Your task to perform on an android device: turn notification dots on Image 0: 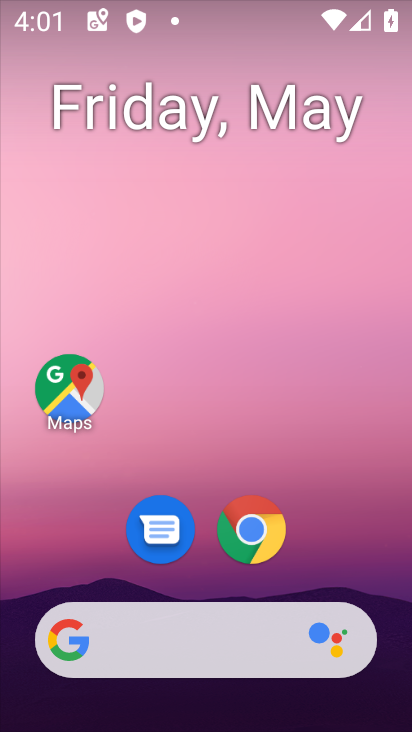
Step 0: drag from (270, 599) to (294, 195)
Your task to perform on an android device: turn notification dots on Image 1: 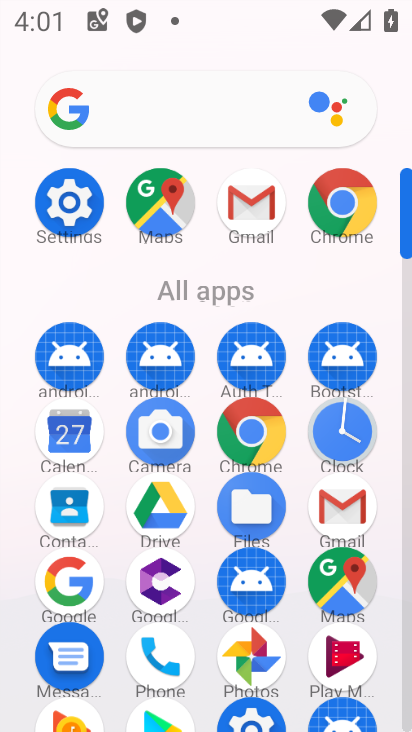
Step 1: click (87, 206)
Your task to perform on an android device: turn notification dots on Image 2: 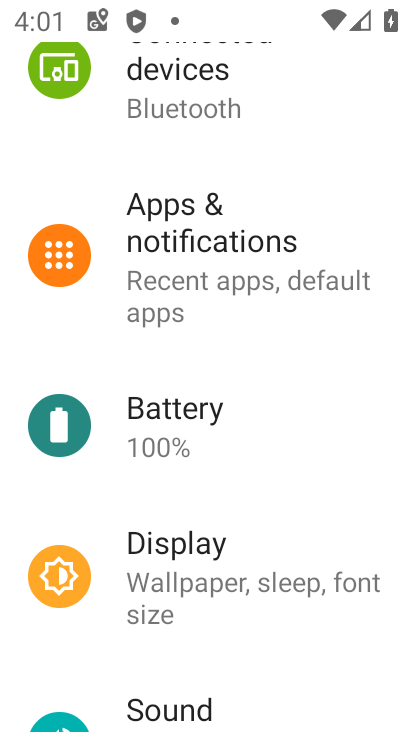
Step 2: click (270, 243)
Your task to perform on an android device: turn notification dots on Image 3: 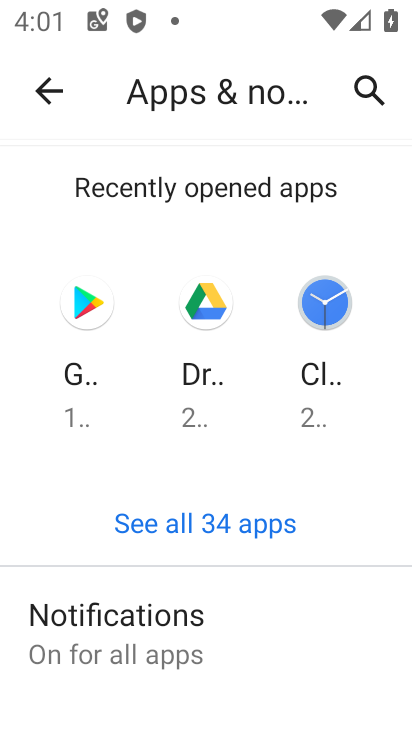
Step 3: drag from (40, 675) to (100, 498)
Your task to perform on an android device: turn notification dots on Image 4: 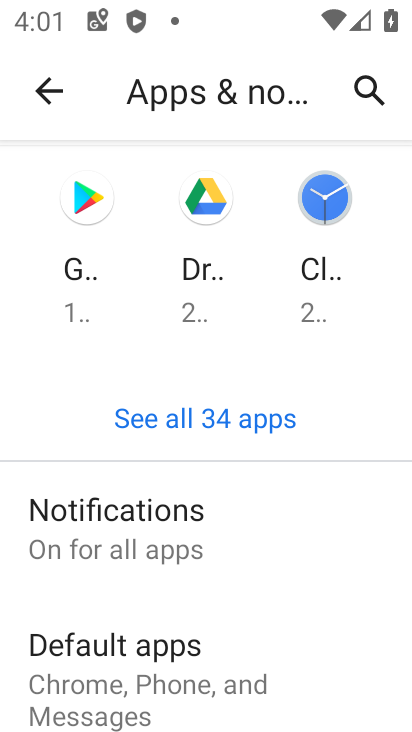
Step 4: drag from (111, 650) to (123, 428)
Your task to perform on an android device: turn notification dots on Image 5: 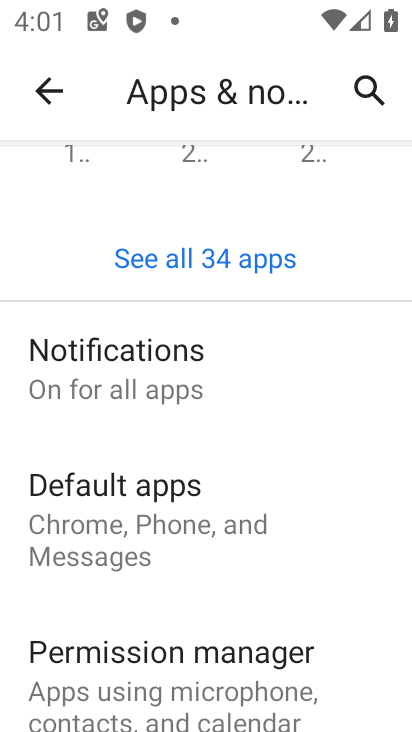
Step 5: drag from (121, 666) to (138, 522)
Your task to perform on an android device: turn notification dots on Image 6: 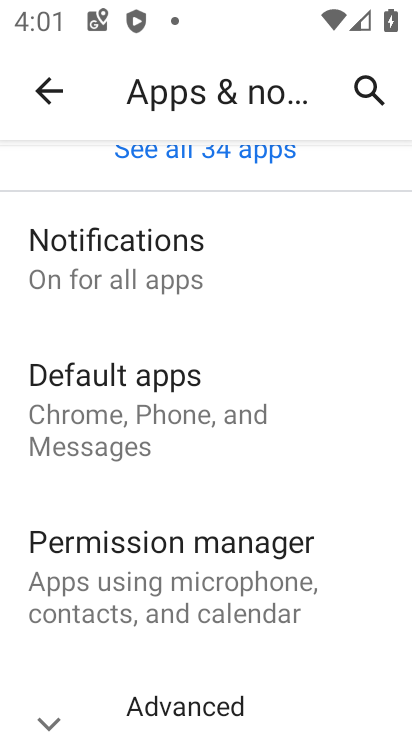
Step 6: click (209, 293)
Your task to perform on an android device: turn notification dots on Image 7: 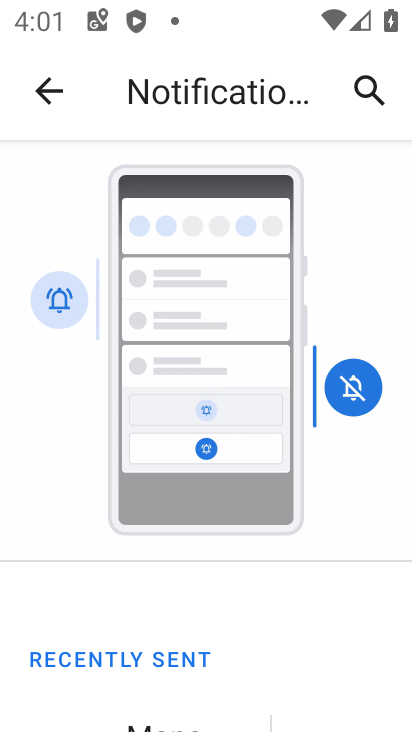
Step 7: drag from (164, 602) to (197, 226)
Your task to perform on an android device: turn notification dots on Image 8: 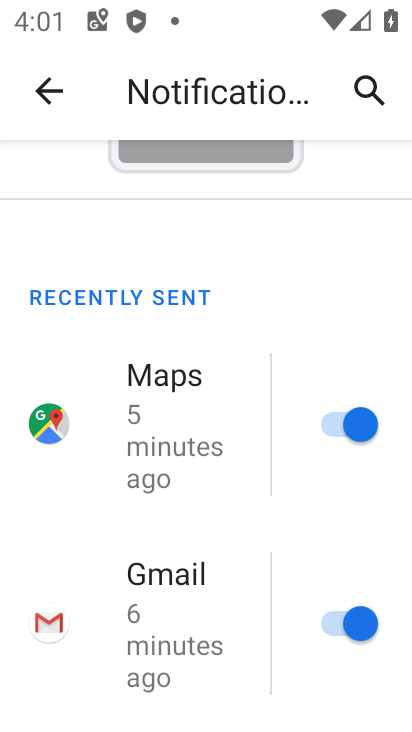
Step 8: drag from (202, 632) to (293, 230)
Your task to perform on an android device: turn notification dots on Image 9: 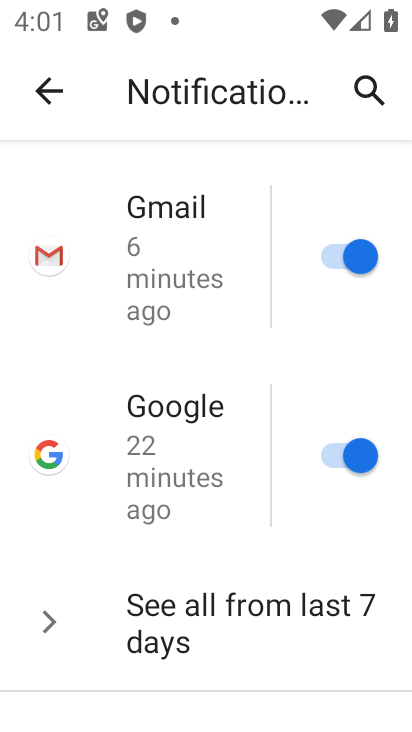
Step 9: drag from (223, 659) to (289, 465)
Your task to perform on an android device: turn notification dots on Image 10: 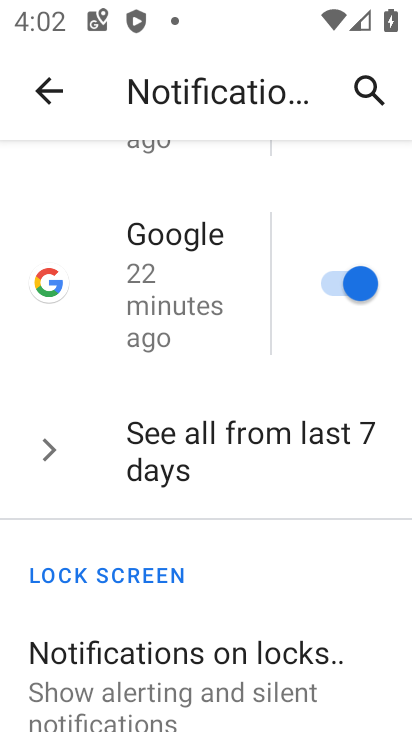
Step 10: drag from (208, 686) to (233, 382)
Your task to perform on an android device: turn notification dots on Image 11: 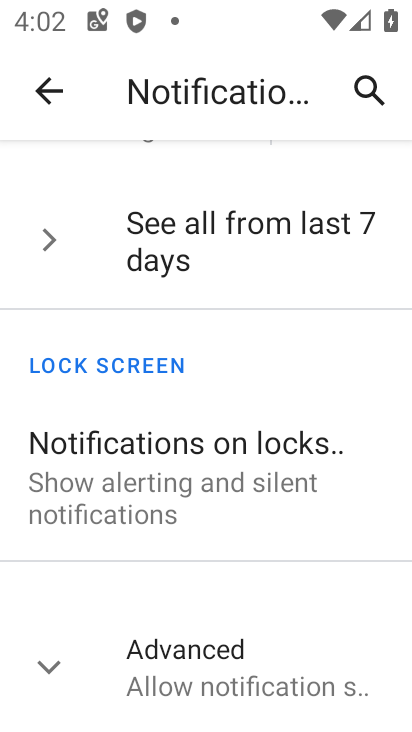
Step 11: click (228, 673)
Your task to perform on an android device: turn notification dots on Image 12: 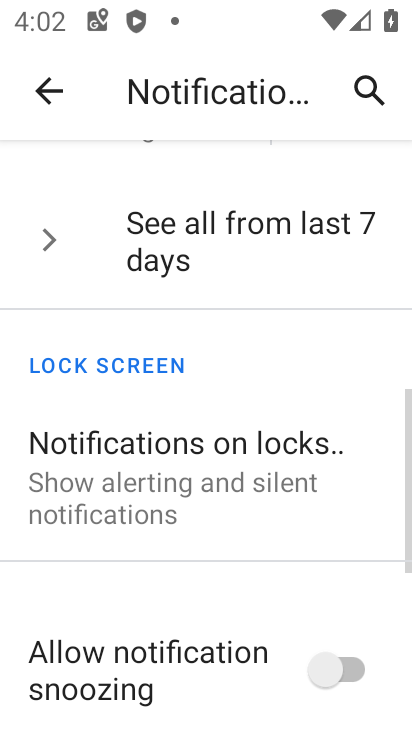
Step 12: drag from (228, 673) to (248, 473)
Your task to perform on an android device: turn notification dots on Image 13: 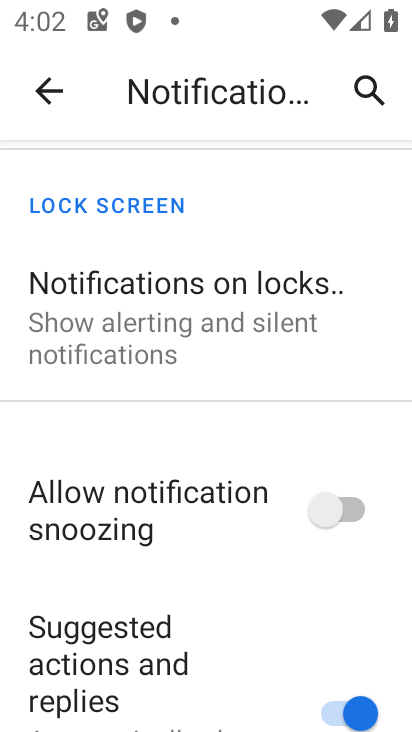
Step 13: drag from (258, 674) to (263, 404)
Your task to perform on an android device: turn notification dots on Image 14: 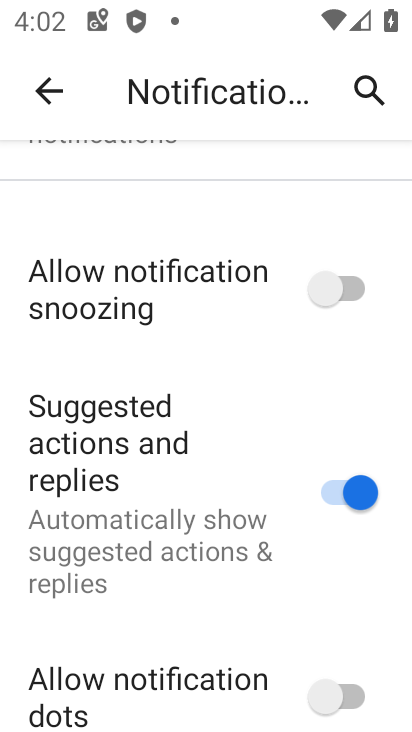
Step 14: click (227, 692)
Your task to perform on an android device: turn notification dots on Image 15: 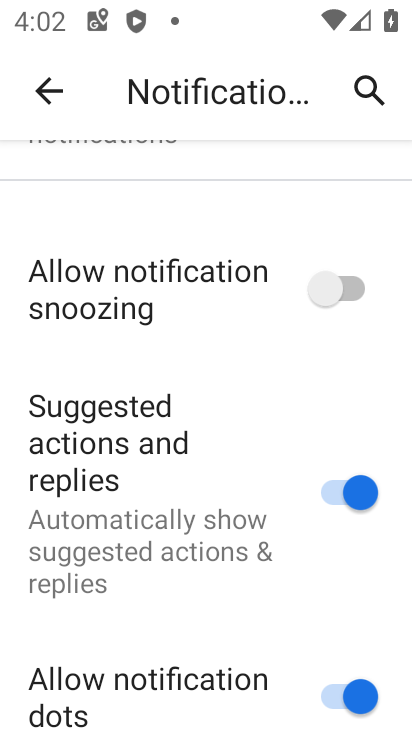
Step 15: task complete